Your task to perform on an android device: Open Google Image 0: 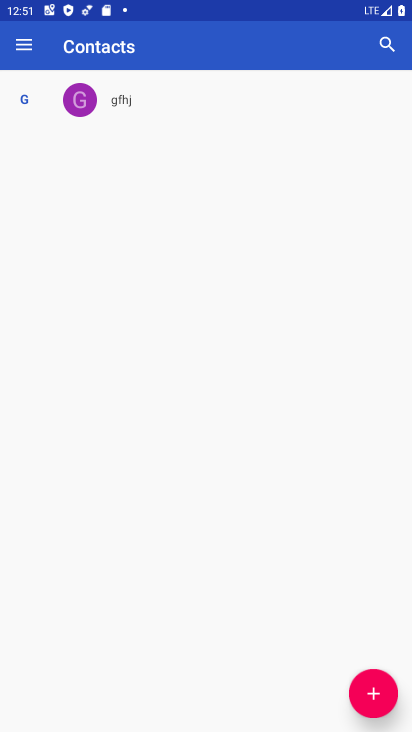
Step 0: press home button
Your task to perform on an android device: Open Google Image 1: 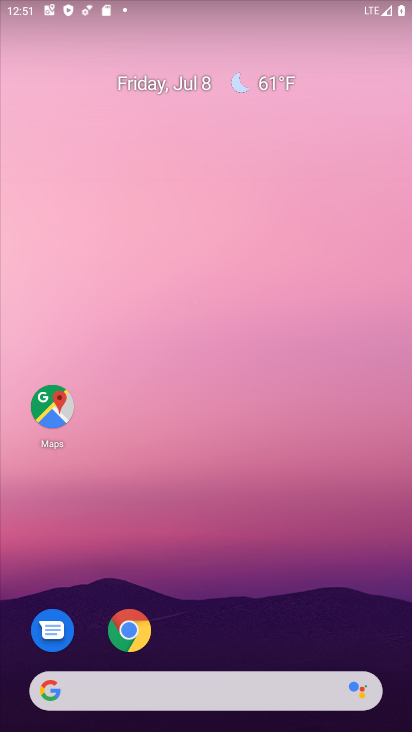
Step 1: drag from (367, 648) to (183, 76)
Your task to perform on an android device: Open Google Image 2: 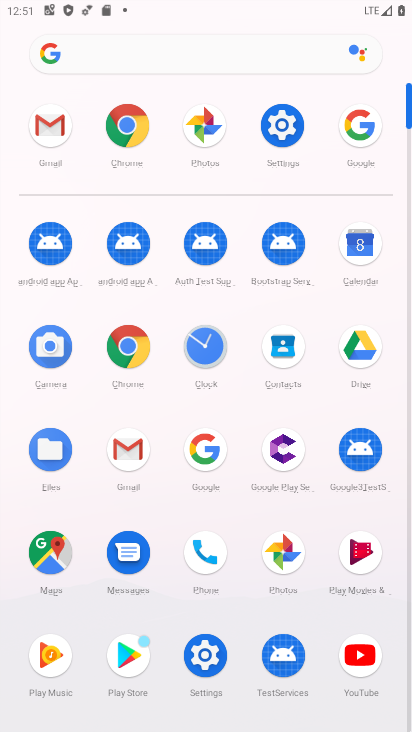
Step 2: click (206, 447)
Your task to perform on an android device: Open Google Image 3: 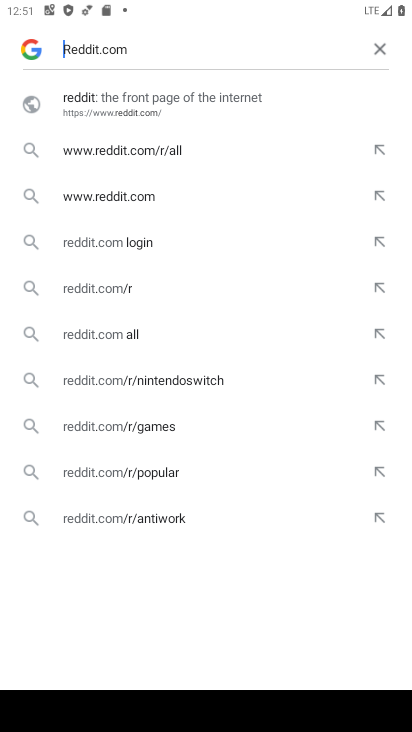
Step 3: click (381, 49)
Your task to perform on an android device: Open Google Image 4: 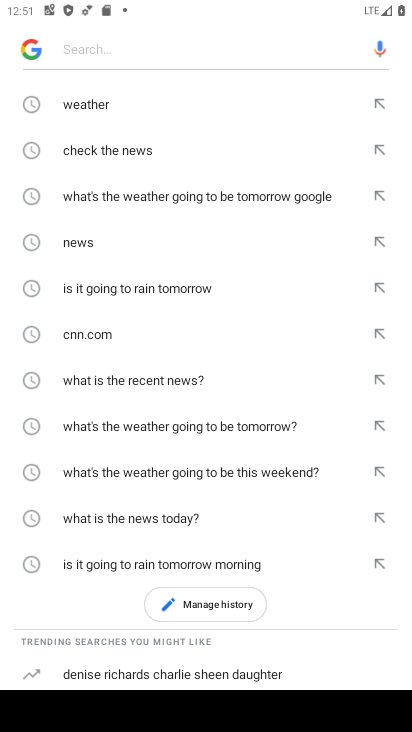
Step 4: task complete